Your task to perform on an android device: uninstall "Pandora - Music & Podcasts" Image 0: 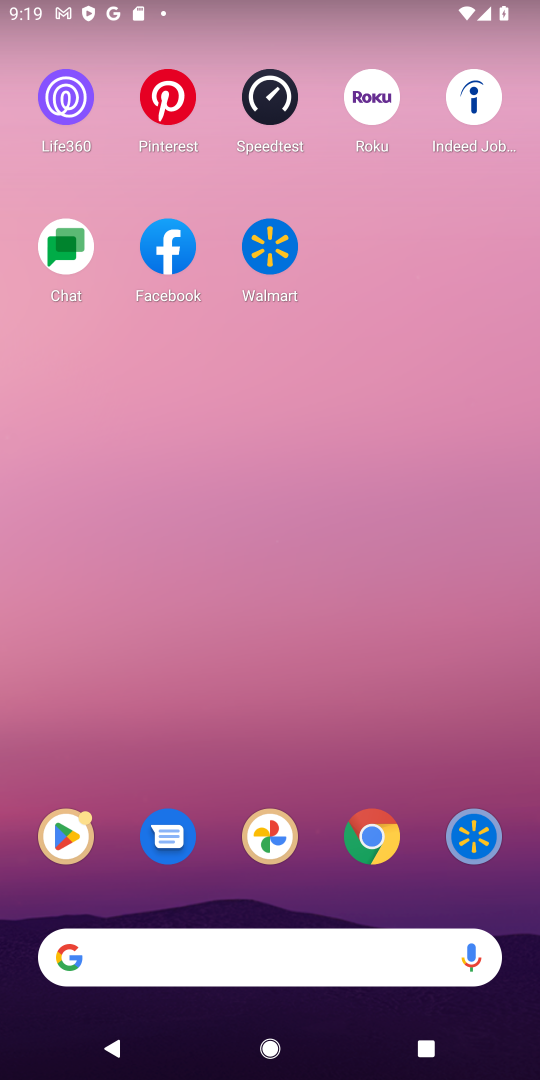
Step 0: drag from (320, 245) to (320, 179)
Your task to perform on an android device: uninstall "Pandora - Music & Podcasts" Image 1: 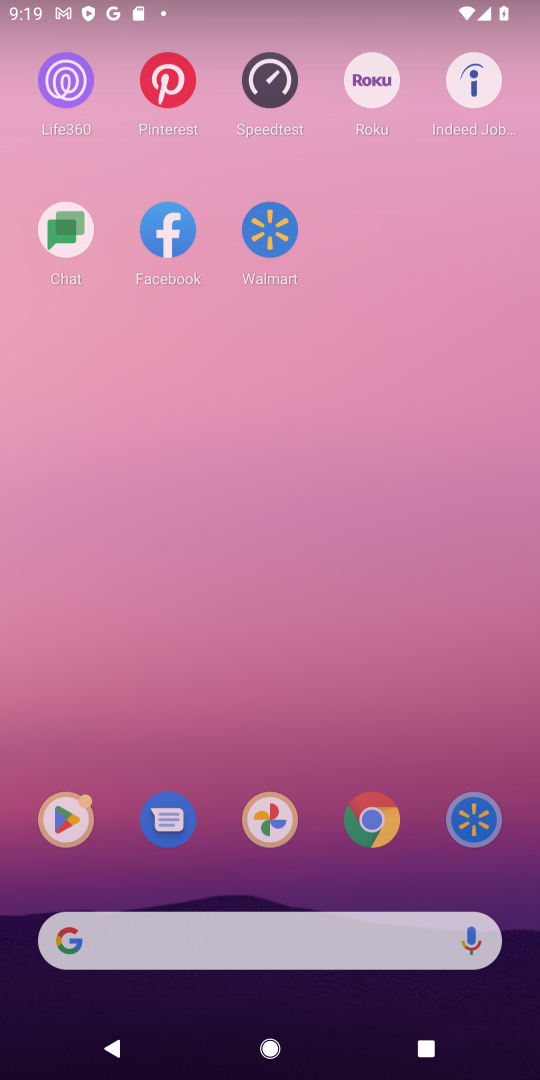
Step 1: drag from (250, 825) to (199, 434)
Your task to perform on an android device: uninstall "Pandora - Music & Podcasts" Image 2: 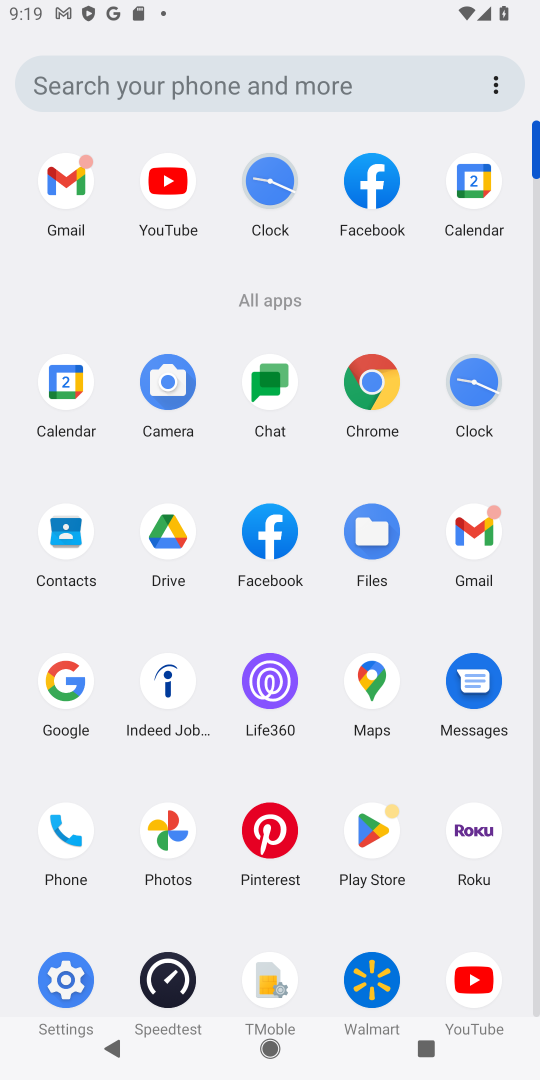
Step 2: click (368, 815)
Your task to perform on an android device: uninstall "Pandora - Music & Podcasts" Image 3: 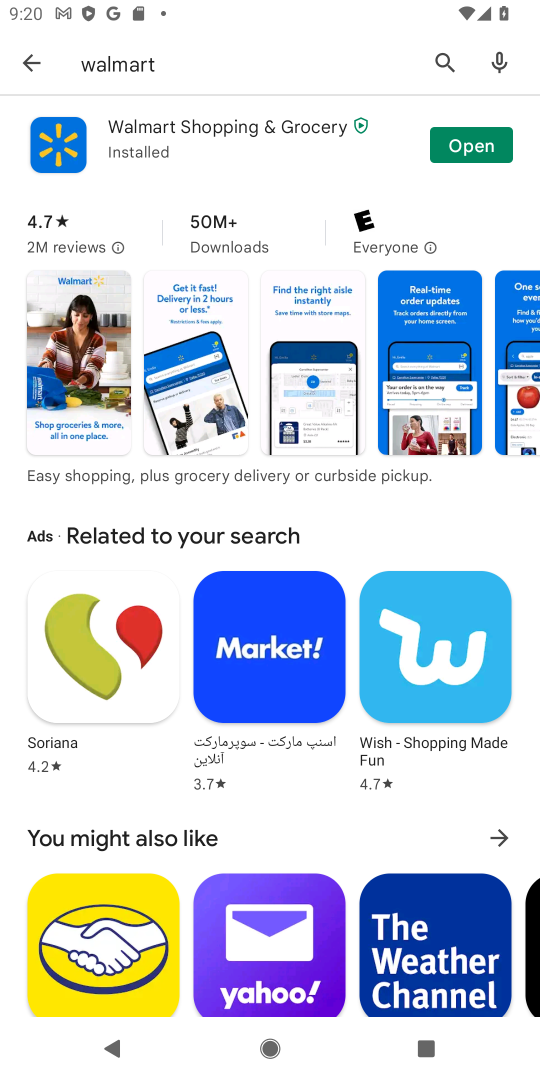
Step 3: click (500, 152)
Your task to perform on an android device: uninstall "Pandora - Music & Podcasts" Image 4: 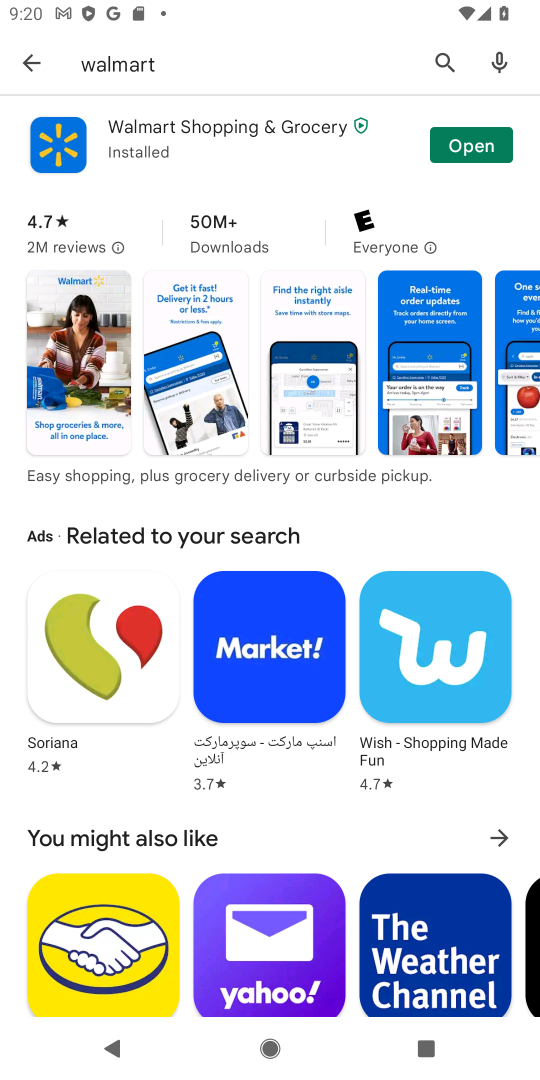
Step 4: click (497, 159)
Your task to perform on an android device: uninstall "Pandora - Music & Podcasts" Image 5: 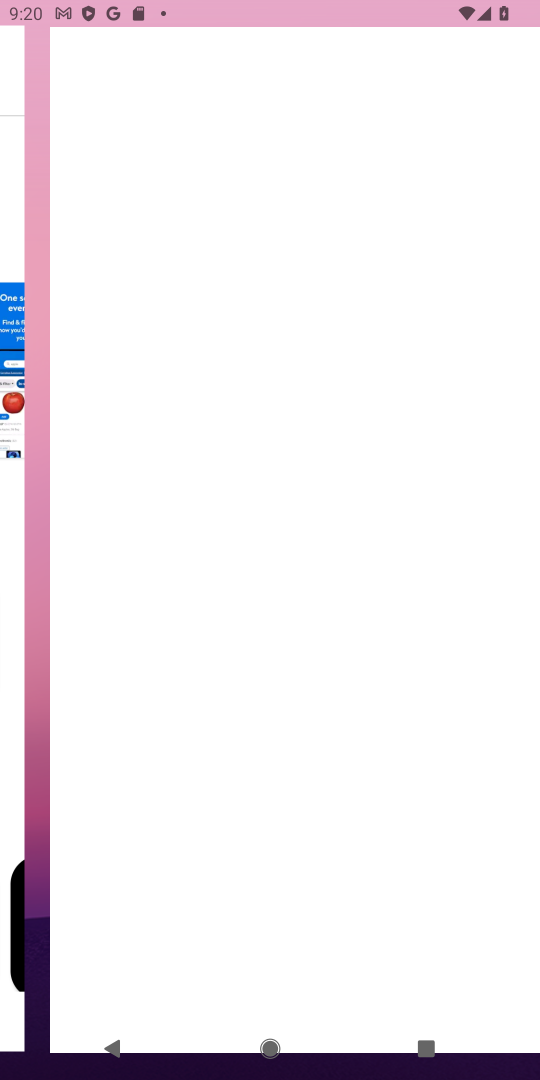
Step 5: click (497, 163)
Your task to perform on an android device: uninstall "Pandora - Music & Podcasts" Image 6: 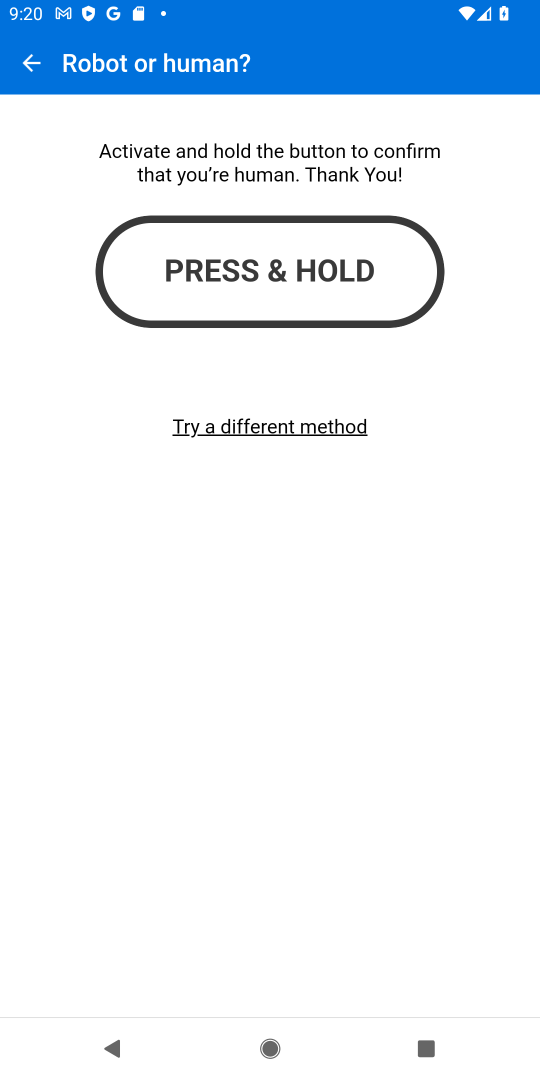
Step 6: click (278, 445)
Your task to perform on an android device: uninstall "Pandora - Music & Podcasts" Image 7: 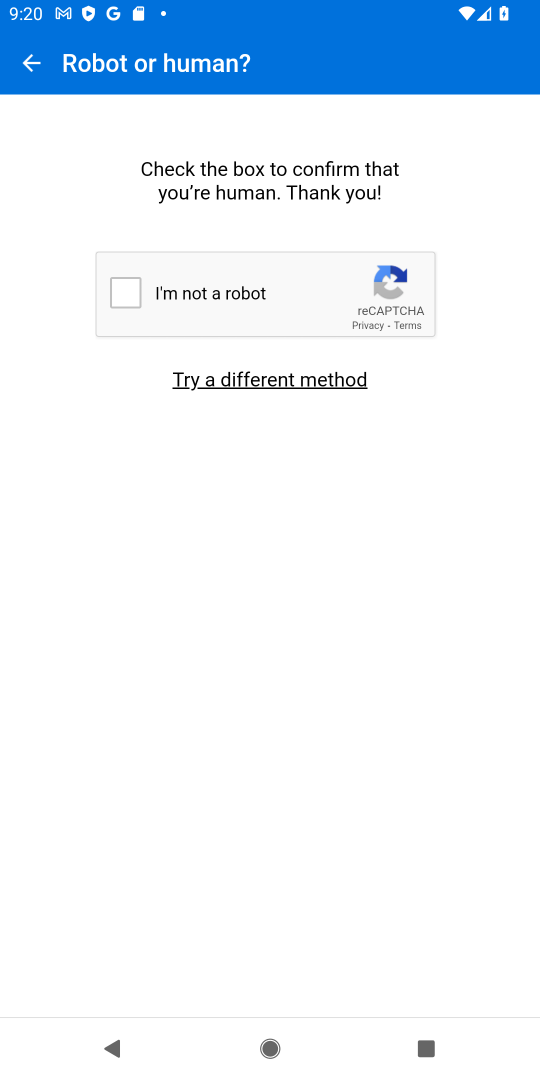
Step 7: task complete